Your task to perform on an android device: delete a single message in the gmail app Image 0: 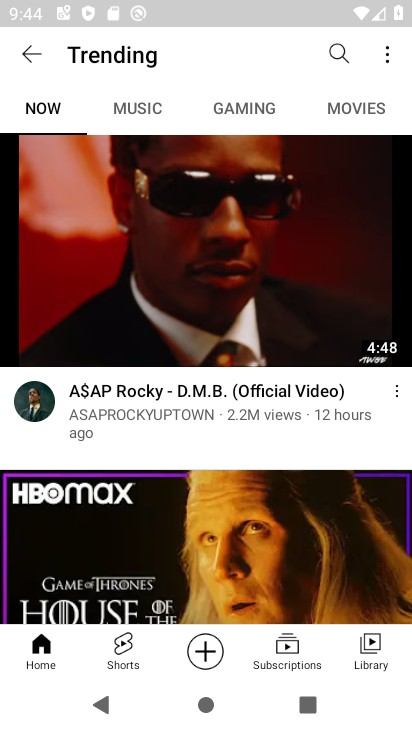
Step 0: press home button
Your task to perform on an android device: delete a single message in the gmail app Image 1: 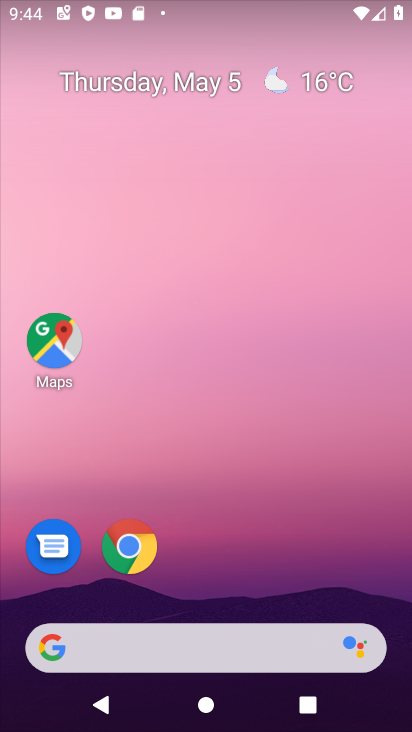
Step 1: drag from (252, 585) to (269, 198)
Your task to perform on an android device: delete a single message in the gmail app Image 2: 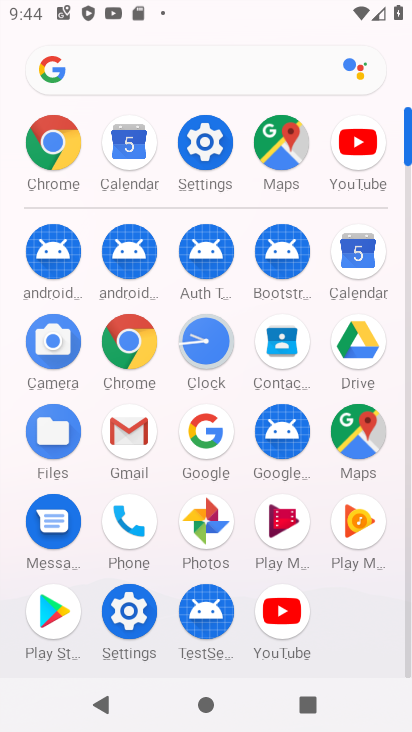
Step 2: click (140, 437)
Your task to perform on an android device: delete a single message in the gmail app Image 3: 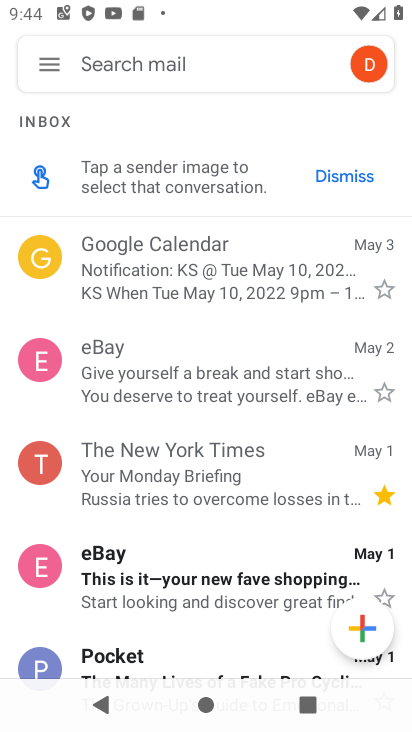
Step 3: click (187, 305)
Your task to perform on an android device: delete a single message in the gmail app Image 4: 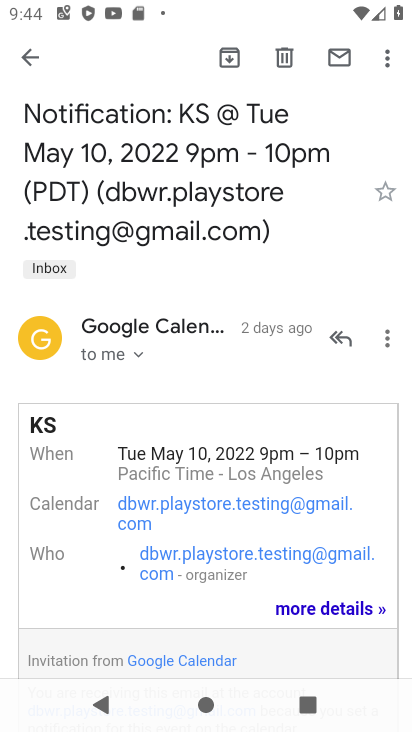
Step 4: click (281, 58)
Your task to perform on an android device: delete a single message in the gmail app Image 5: 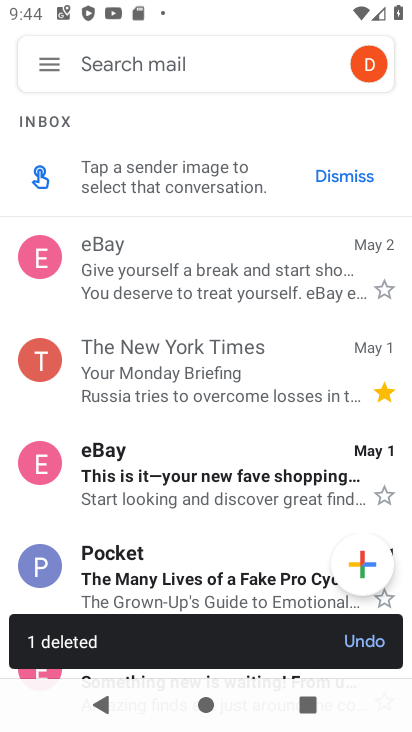
Step 5: task complete